Your task to perform on an android device: Add "bose soundsport free" to the cart on amazon Image 0: 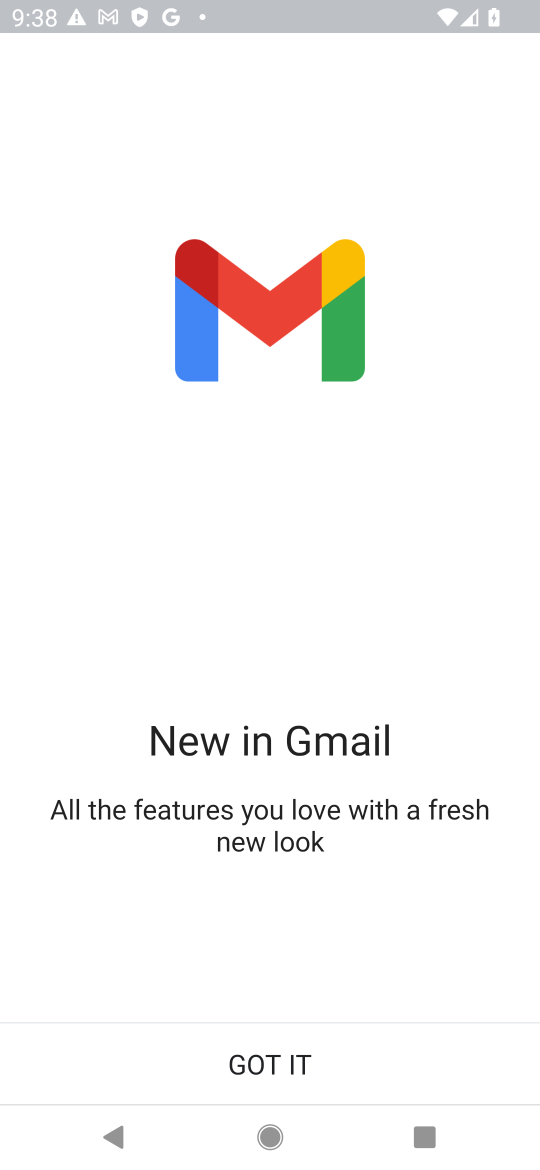
Step 0: press home button
Your task to perform on an android device: Add "bose soundsport free" to the cart on amazon Image 1: 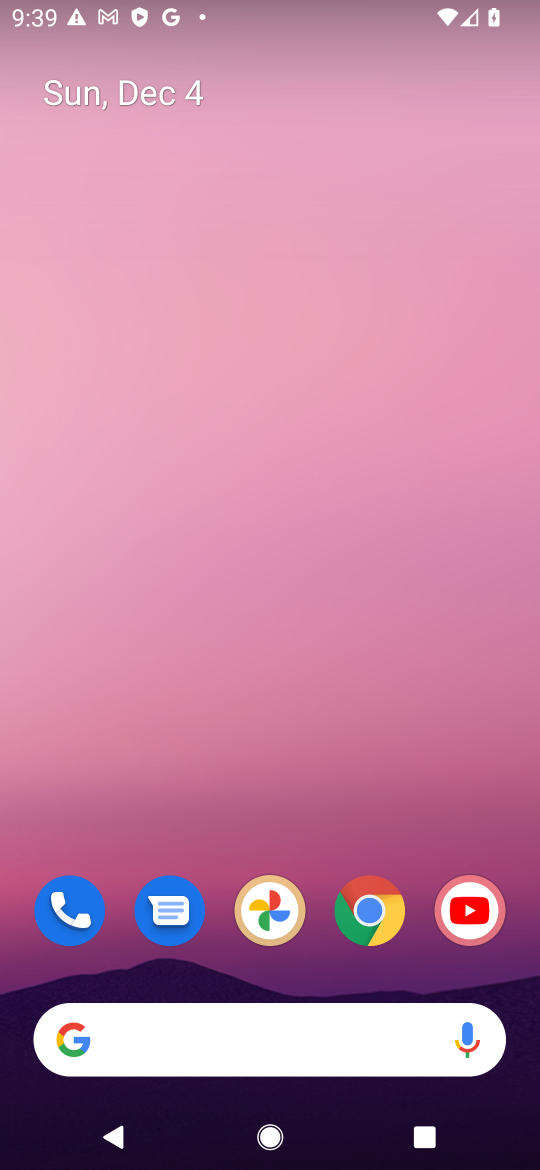
Step 1: drag from (190, 1099) to (385, 5)
Your task to perform on an android device: Add "bose soundsport free" to the cart on amazon Image 2: 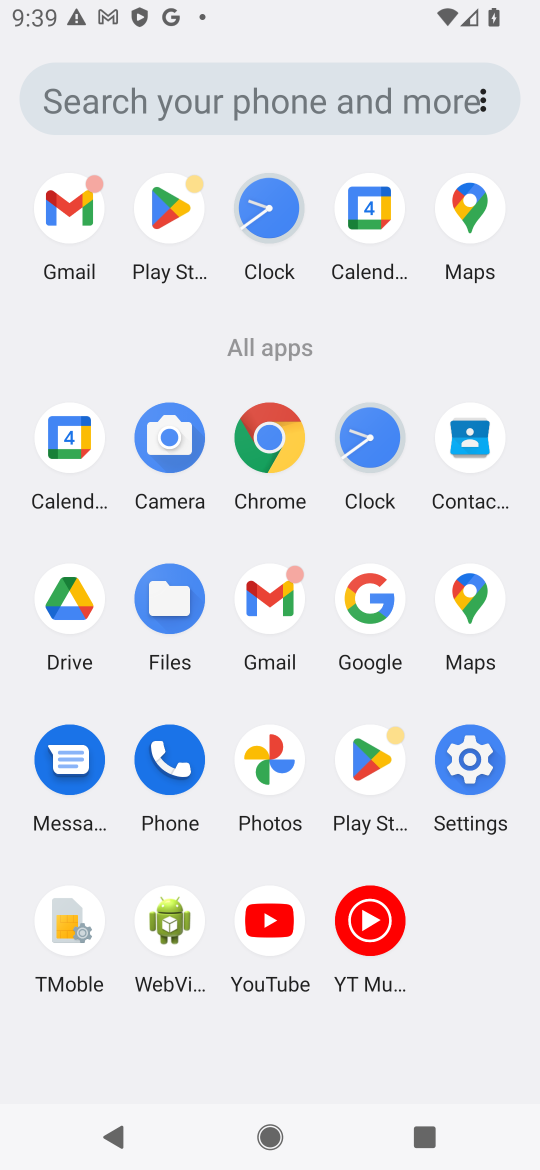
Step 2: click (266, 451)
Your task to perform on an android device: Add "bose soundsport free" to the cart on amazon Image 3: 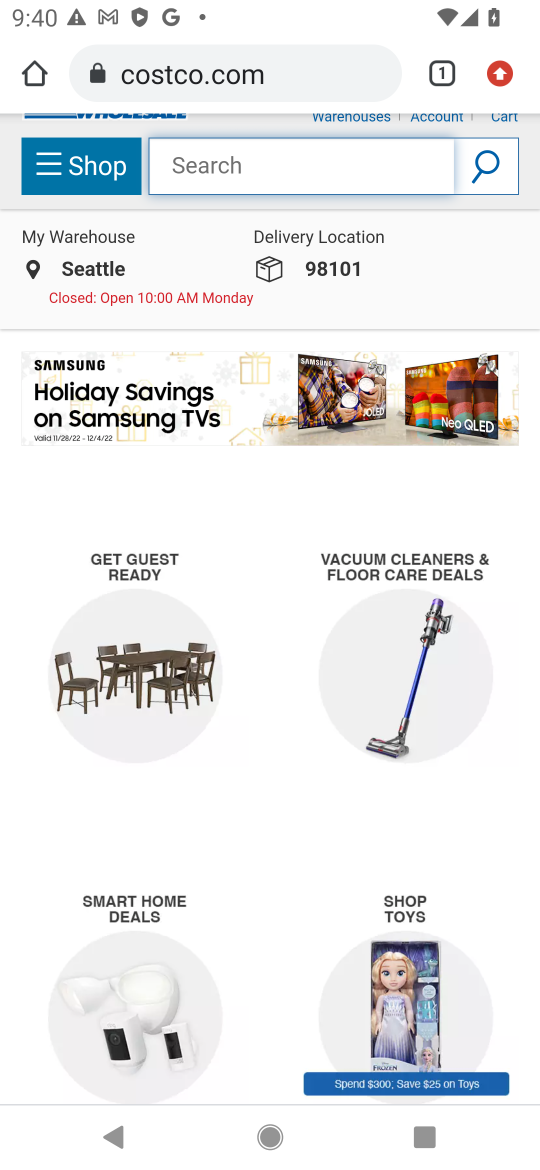
Step 3: type "bose soundsport free"
Your task to perform on an android device: Add "bose soundsport free" to the cart on amazon Image 4: 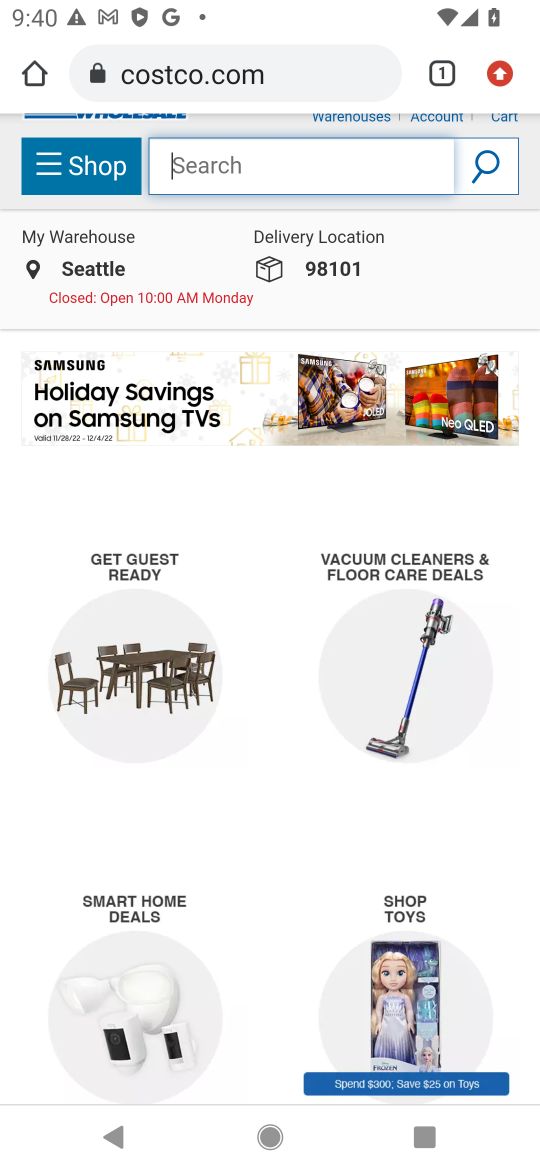
Step 4: click (126, 449)
Your task to perform on an android device: Add "bose soundsport free" to the cart on amazon Image 5: 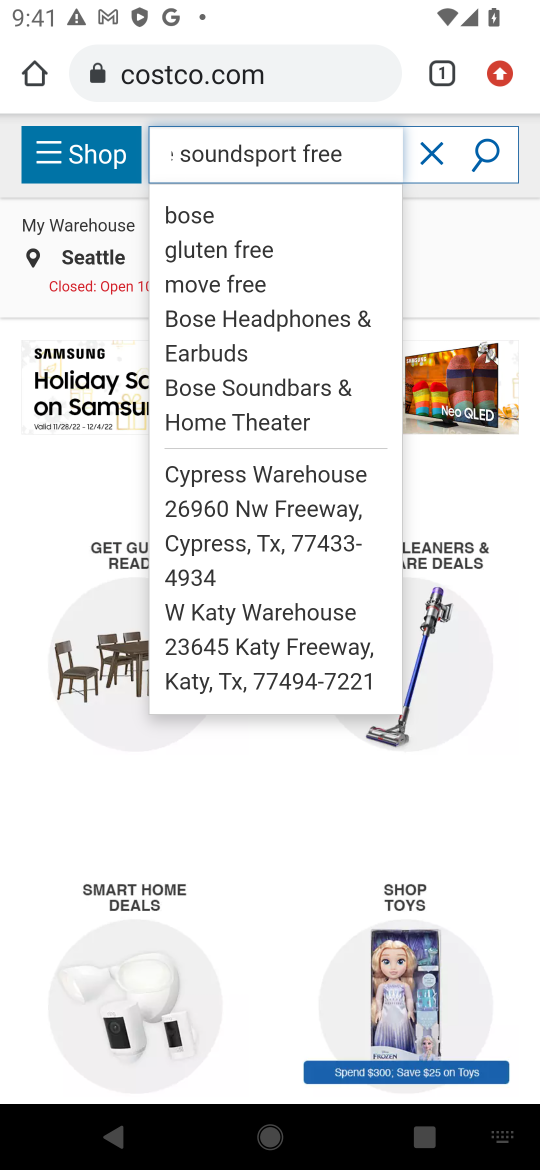
Step 5: click (481, 149)
Your task to perform on an android device: Add "bose soundsport free" to the cart on amazon Image 6: 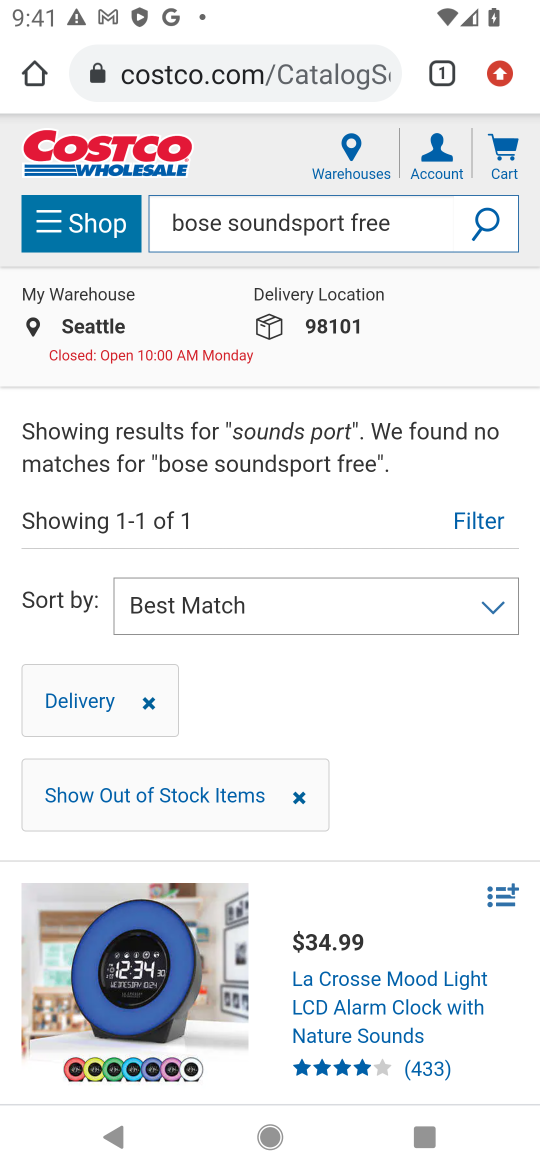
Step 6: drag from (361, 803) to (369, 248)
Your task to perform on an android device: Add "bose soundsport free" to the cart on amazon Image 7: 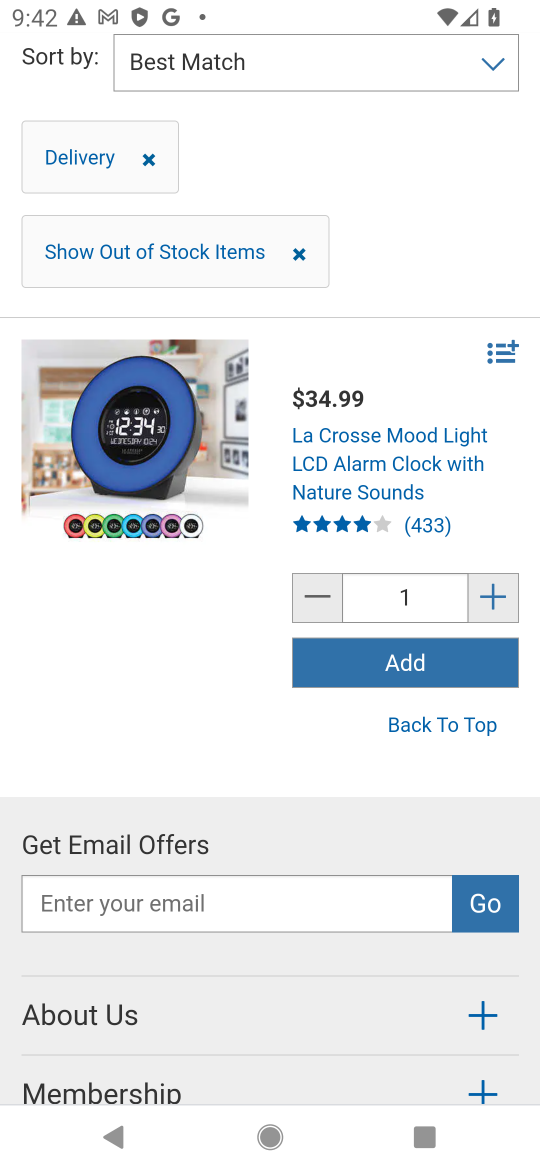
Step 7: click (213, 556)
Your task to perform on an android device: Add "bose soundsport free" to the cart on amazon Image 8: 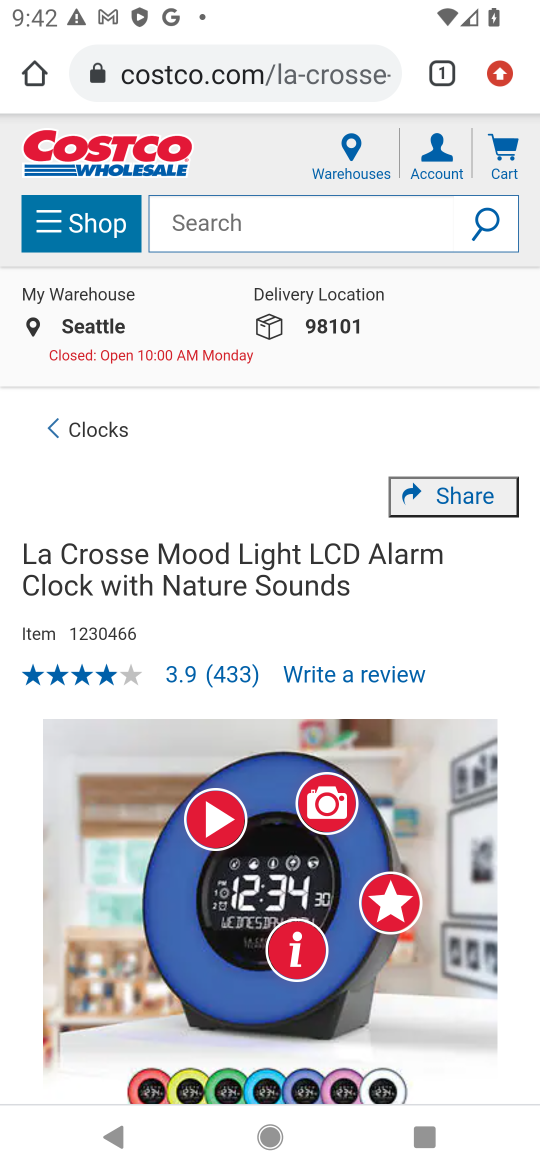
Step 8: drag from (344, 909) to (331, 291)
Your task to perform on an android device: Add "bose soundsport free" to the cart on amazon Image 9: 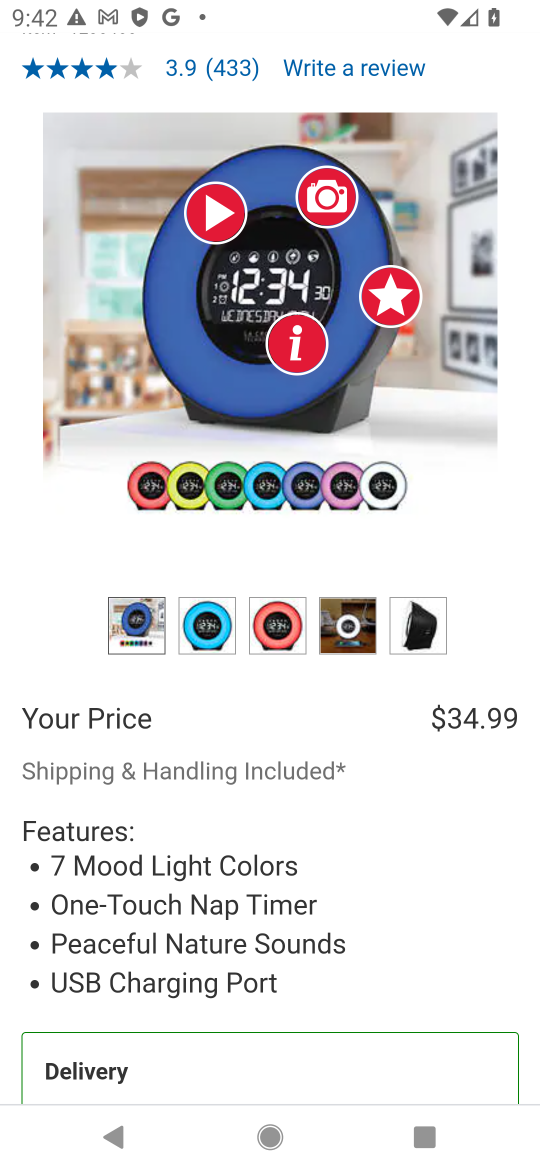
Step 9: drag from (341, 827) to (335, 208)
Your task to perform on an android device: Add "bose soundsport free" to the cart on amazon Image 10: 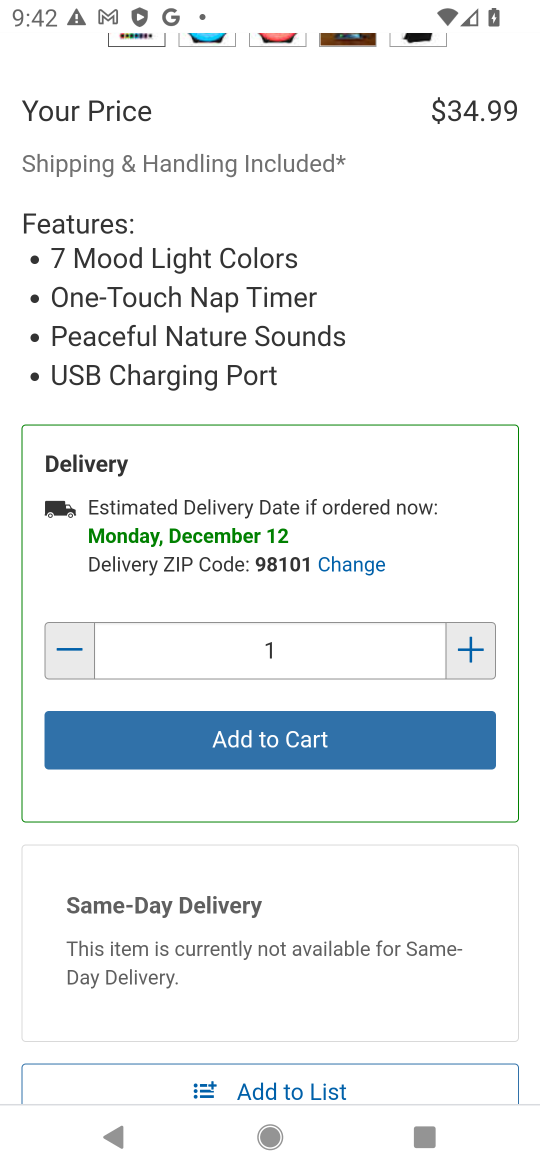
Step 10: click (269, 734)
Your task to perform on an android device: Add "bose soundsport free" to the cart on amazon Image 11: 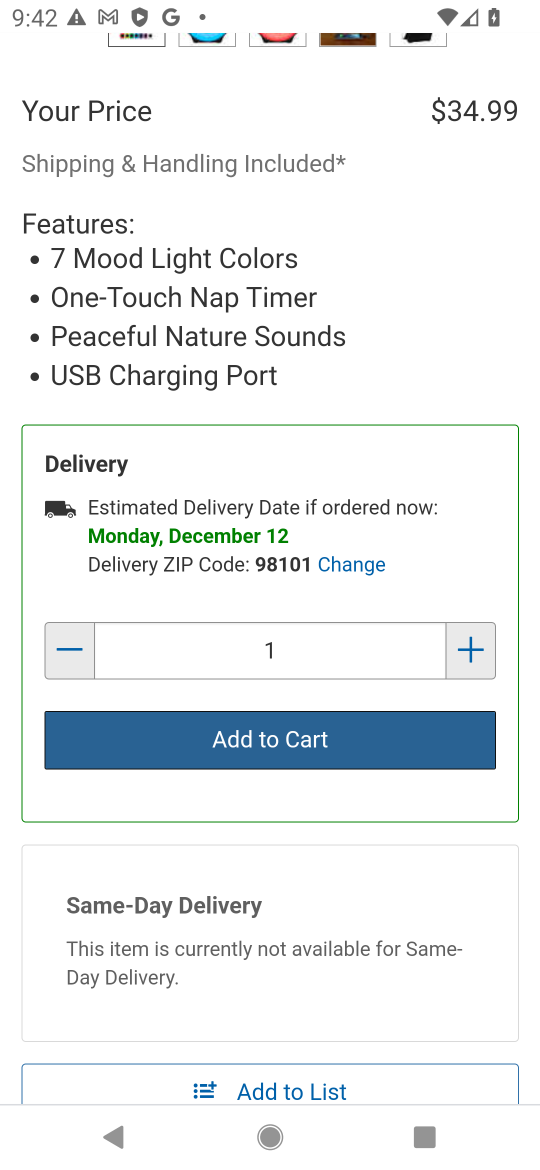
Step 11: click (224, 738)
Your task to perform on an android device: Add "bose soundsport free" to the cart on amazon Image 12: 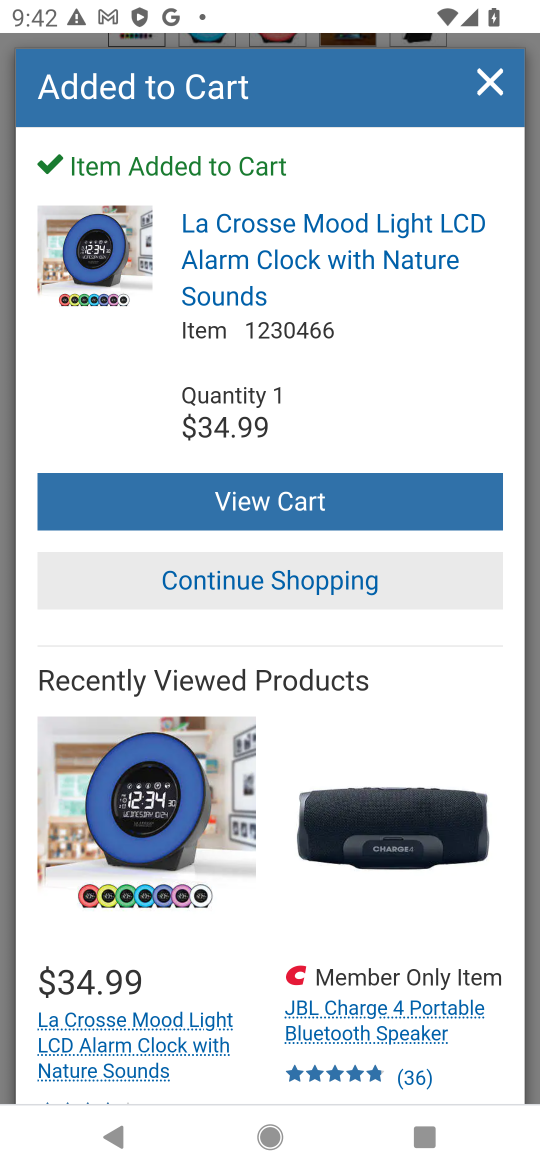
Step 12: task complete